Your task to perform on an android device: find photos in the google photos app Image 0: 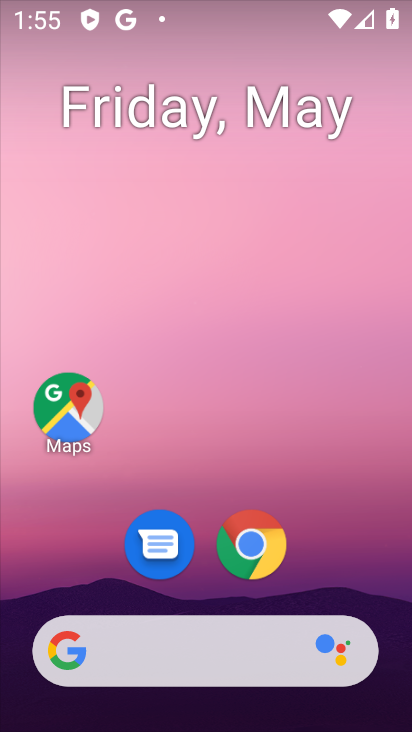
Step 0: drag from (198, 592) to (207, 165)
Your task to perform on an android device: find photos in the google photos app Image 1: 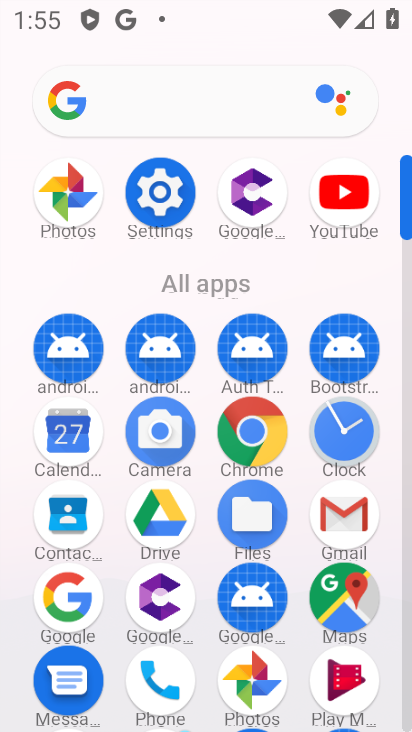
Step 1: click (90, 184)
Your task to perform on an android device: find photos in the google photos app Image 2: 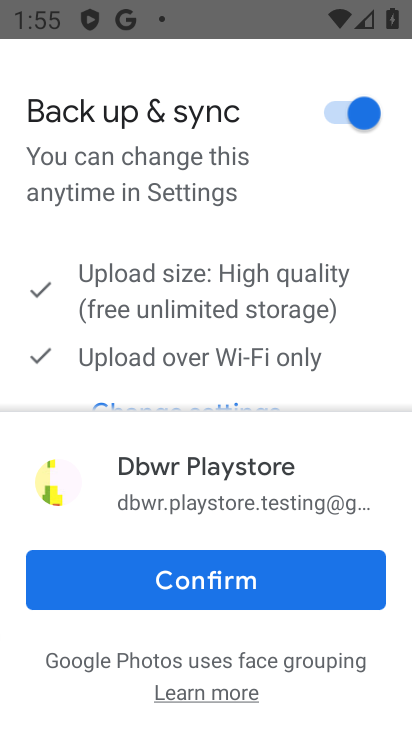
Step 2: click (156, 581)
Your task to perform on an android device: find photos in the google photos app Image 3: 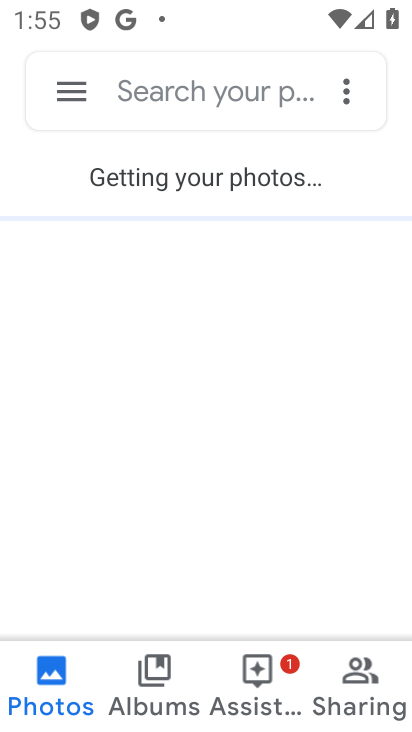
Step 3: click (204, 99)
Your task to perform on an android device: find photos in the google photos app Image 4: 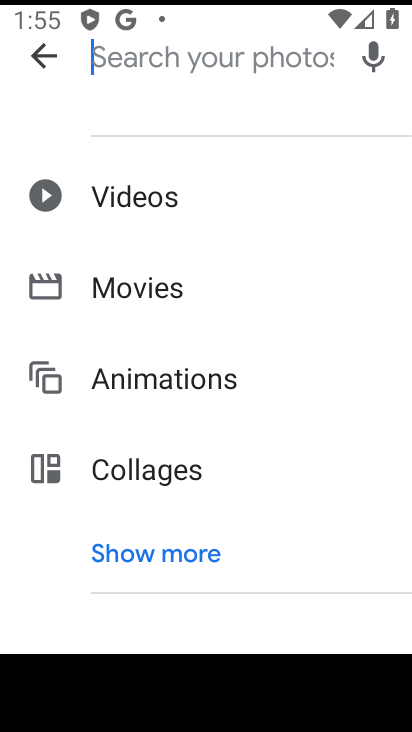
Step 4: type "aa"
Your task to perform on an android device: find photos in the google photos app Image 5: 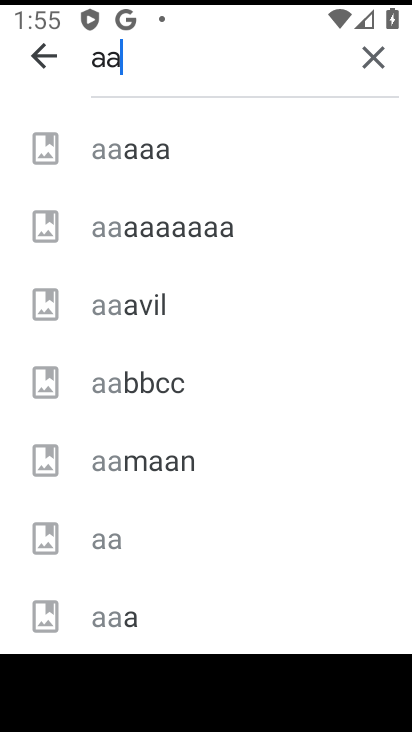
Step 5: click (169, 302)
Your task to perform on an android device: find photos in the google photos app Image 6: 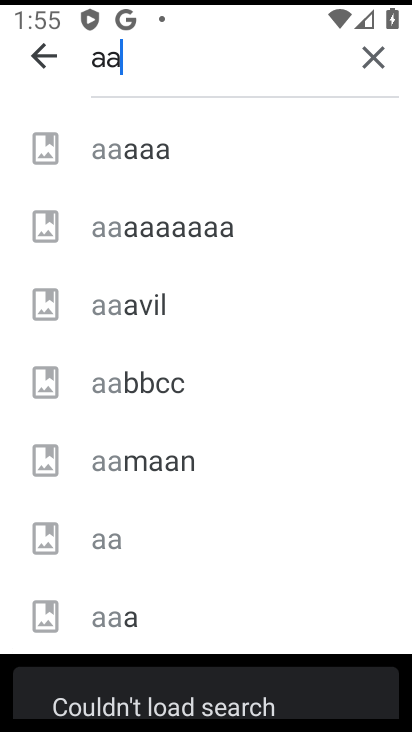
Step 6: click (221, 293)
Your task to perform on an android device: find photos in the google photos app Image 7: 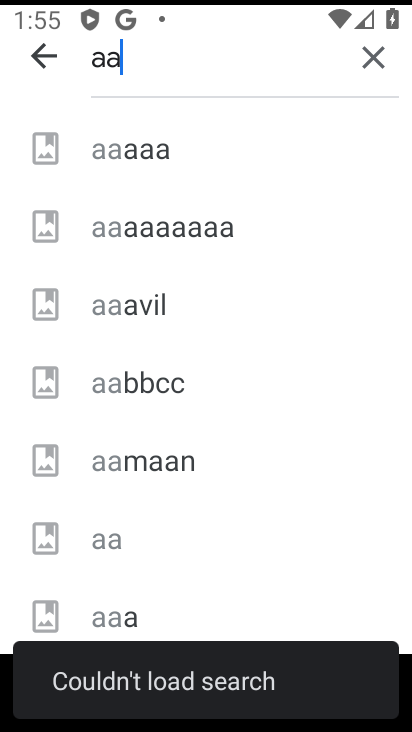
Step 7: click (156, 382)
Your task to perform on an android device: find photos in the google photos app Image 8: 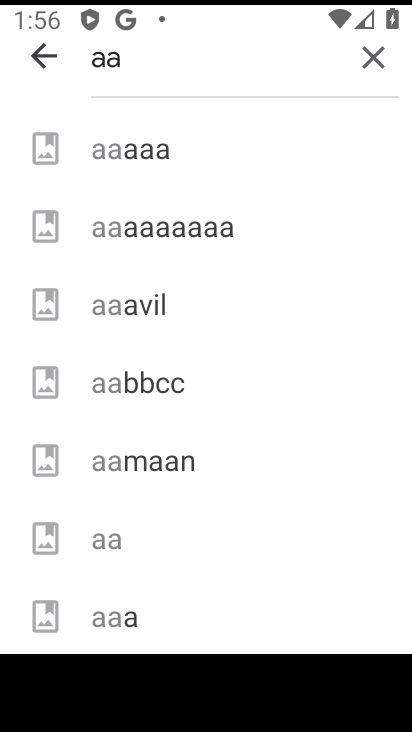
Step 8: click (164, 311)
Your task to perform on an android device: find photos in the google photos app Image 9: 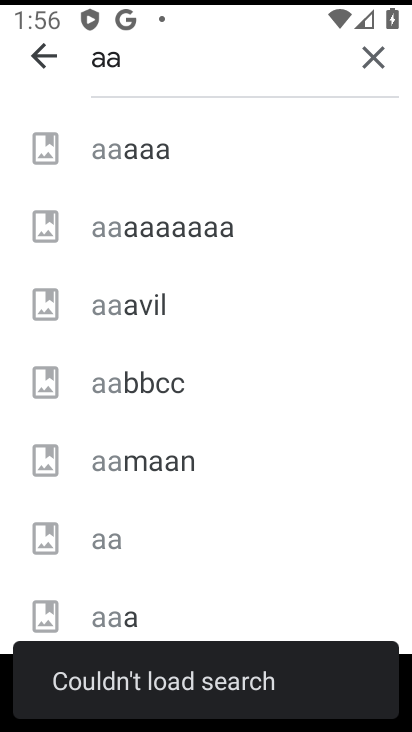
Step 9: task complete